Your task to perform on an android device: What is the news today? Image 0: 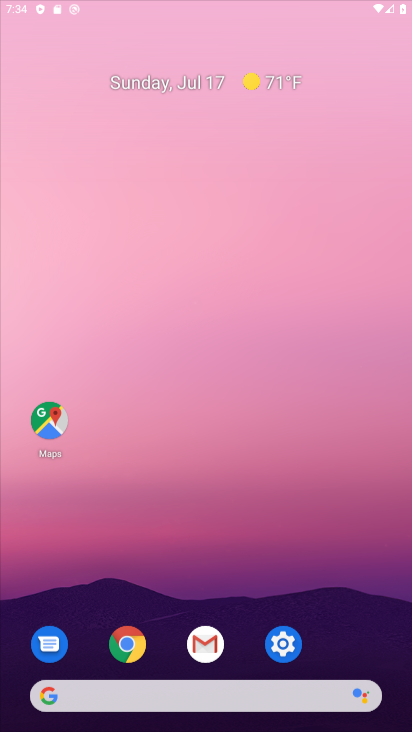
Step 0: press home button
Your task to perform on an android device: What is the news today? Image 1: 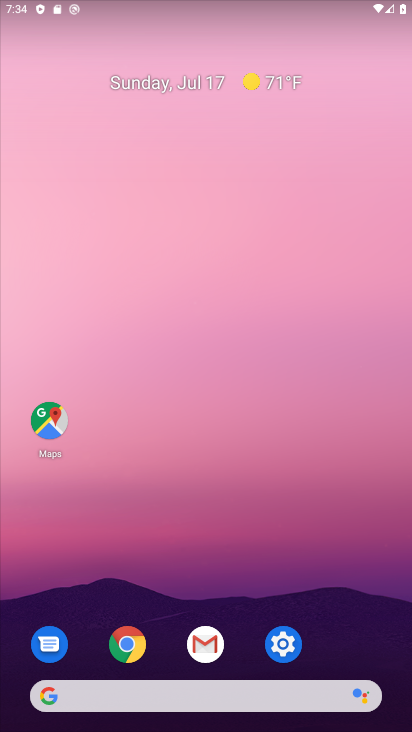
Step 1: click (195, 702)
Your task to perform on an android device: What is the news today? Image 2: 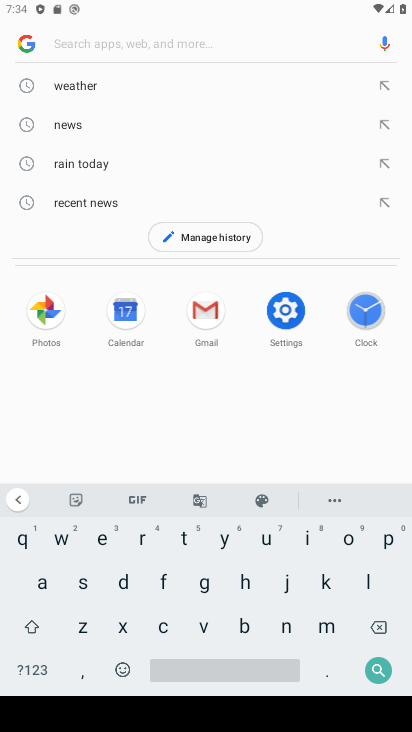
Step 2: click (278, 626)
Your task to perform on an android device: What is the news today? Image 3: 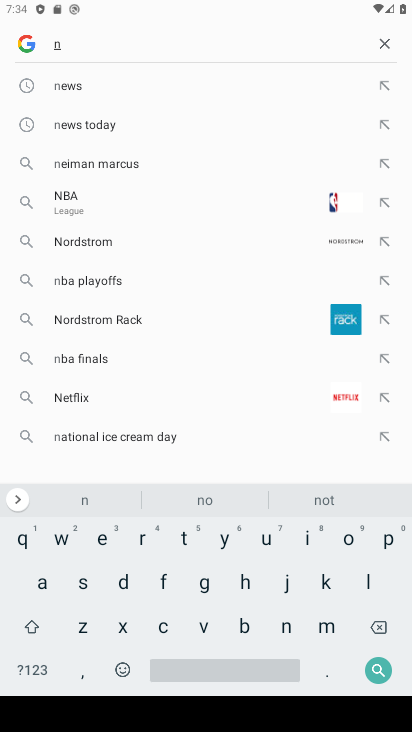
Step 3: click (101, 540)
Your task to perform on an android device: What is the news today? Image 4: 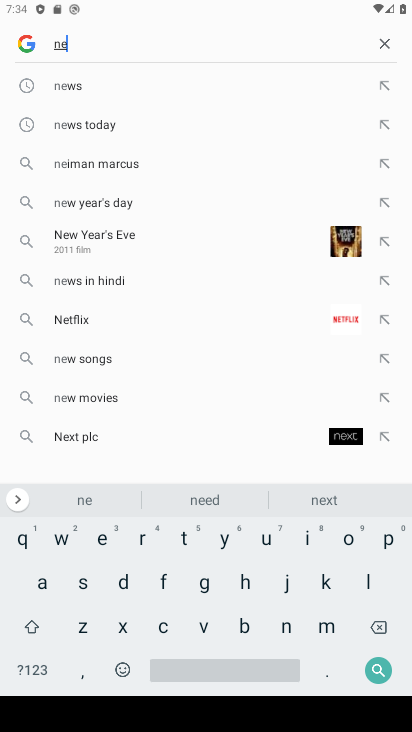
Step 4: click (136, 118)
Your task to perform on an android device: What is the news today? Image 5: 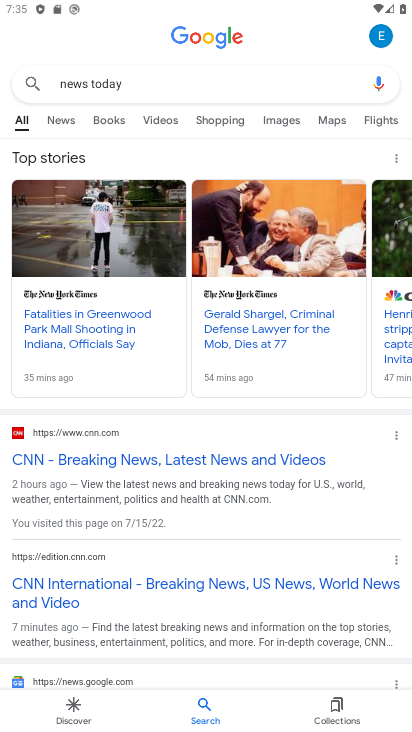
Step 5: task complete